Your task to perform on an android device: Clear all items from cart on costco. Search for "dell xps" on costco, select the first entry, and add it to the cart. Image 0: 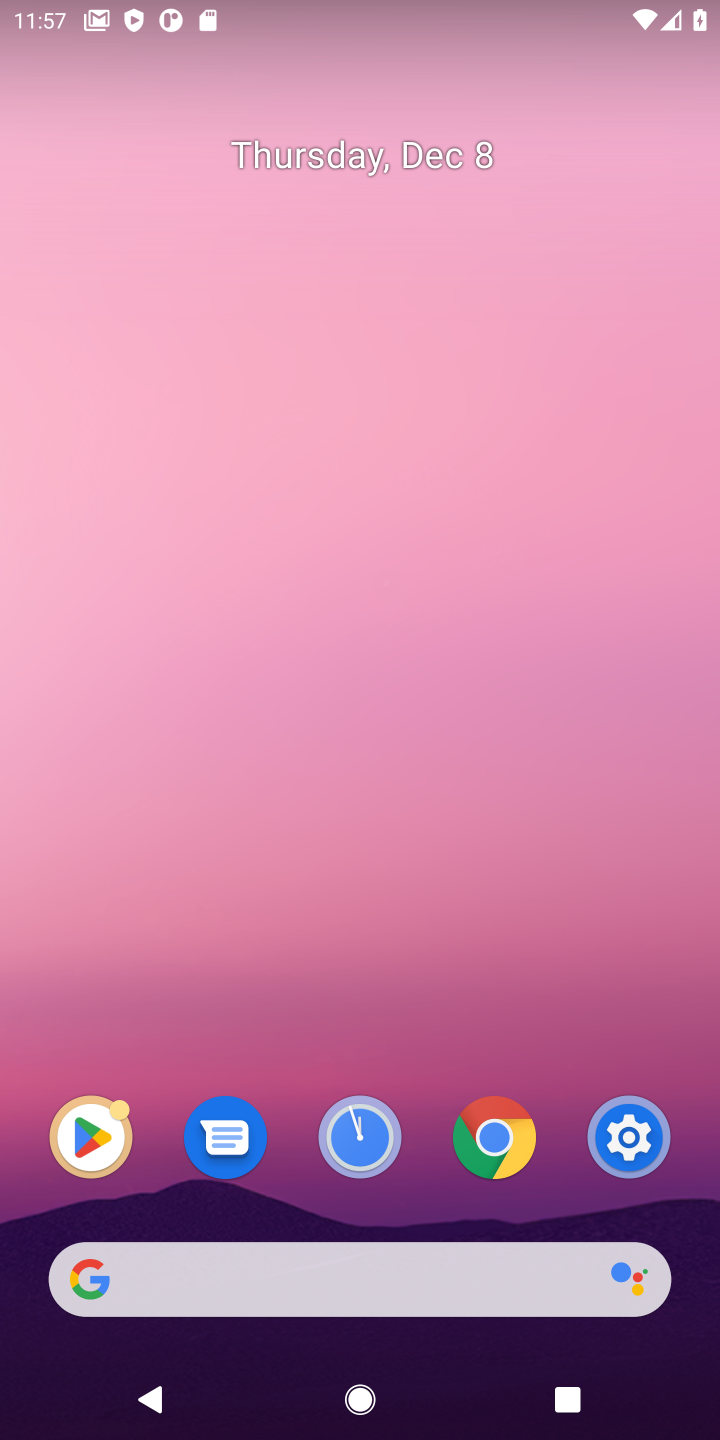
Step 0: click (403, 1275)
Your task to perform on an android device: Clear all items from cart on costco. Search for "dell xps" on costco, select the first entry, and add it to the cart. Image 1: 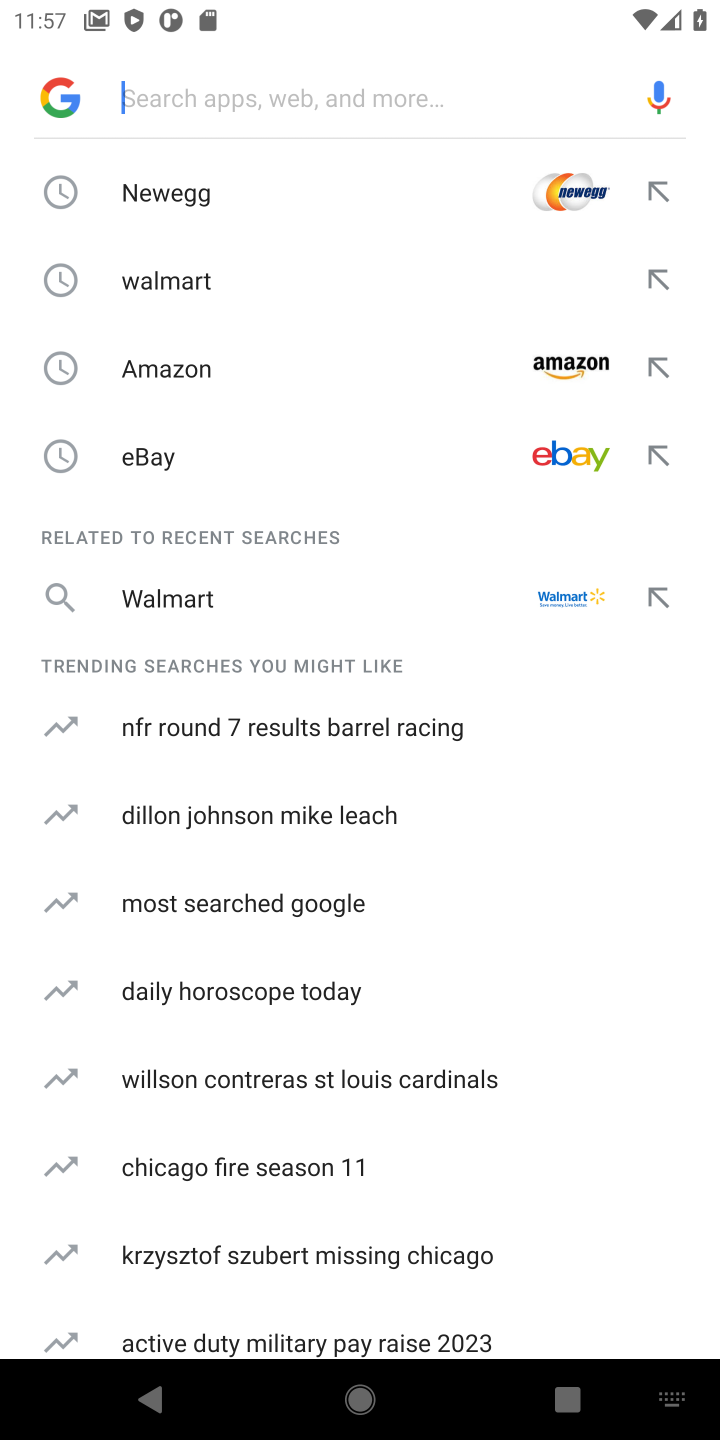
Step 1: type "costco.com"
Your task to perform on an android device: Clear all items from cart on costco. Search for "dell xps" on costco, select the first entry, and add it to the cart. Image 2: 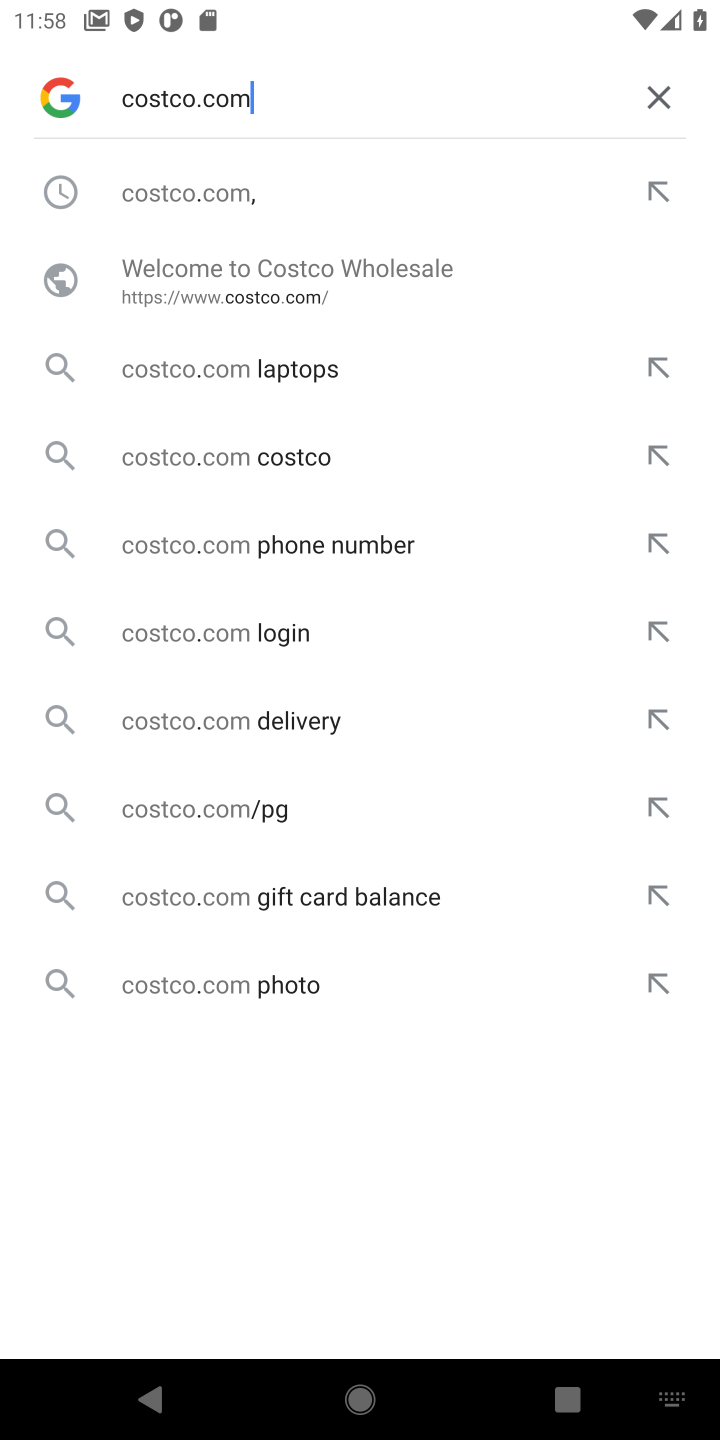
Step 2: click (221, 275)
Your task to perform on an android device: Clear all items from cart on costco. Search for "dell xps" on costco, select the first entry, and add it to the cart. Image 3: 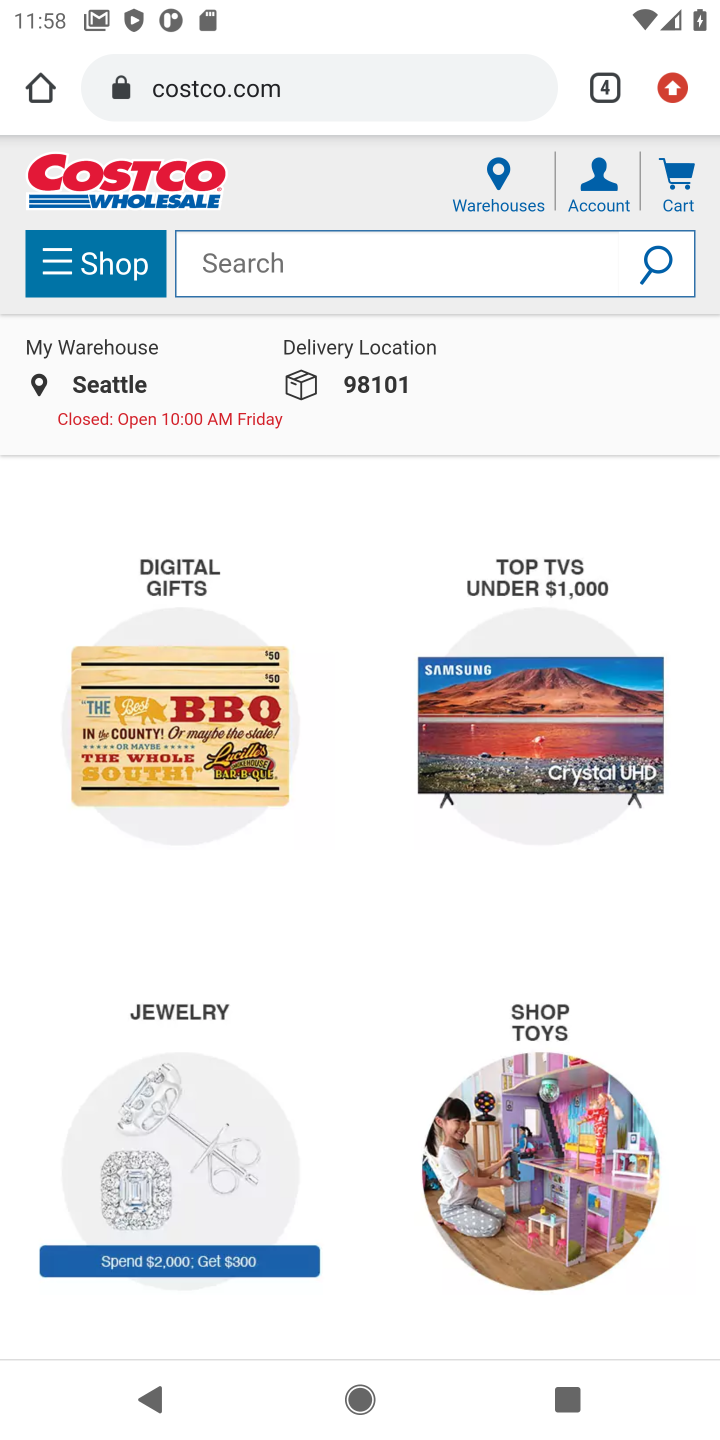
Step 3: click (379, 272)
Your task to perform on an android device: Clear all items from cart on costco. Search for "dell xps" on costco, select the first entry, and add it to the cart. Image 4: 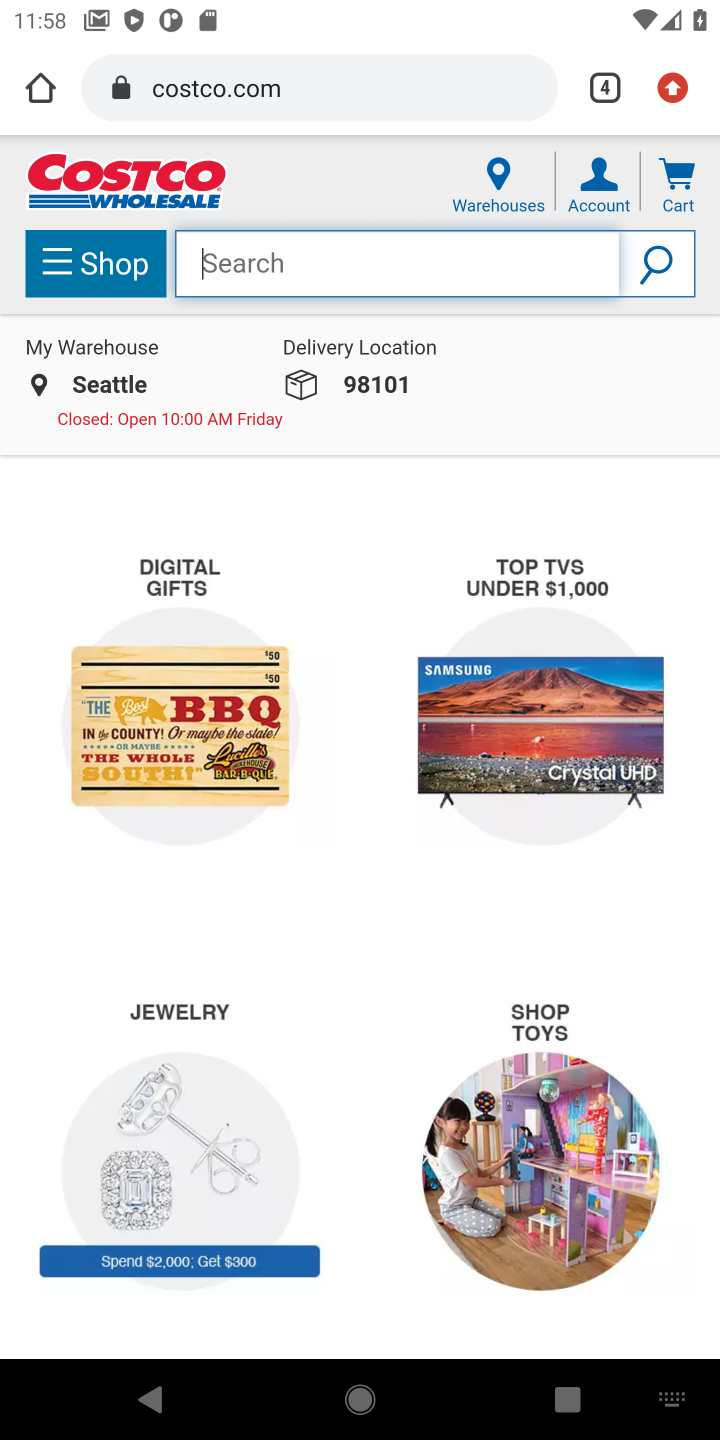
Step 4: type "dell xps"
Your task to perform on an android device: Clear all items from cart on costco. Search for "dell xps" on costco, select the first entry, and add it to the cart. Image 5: 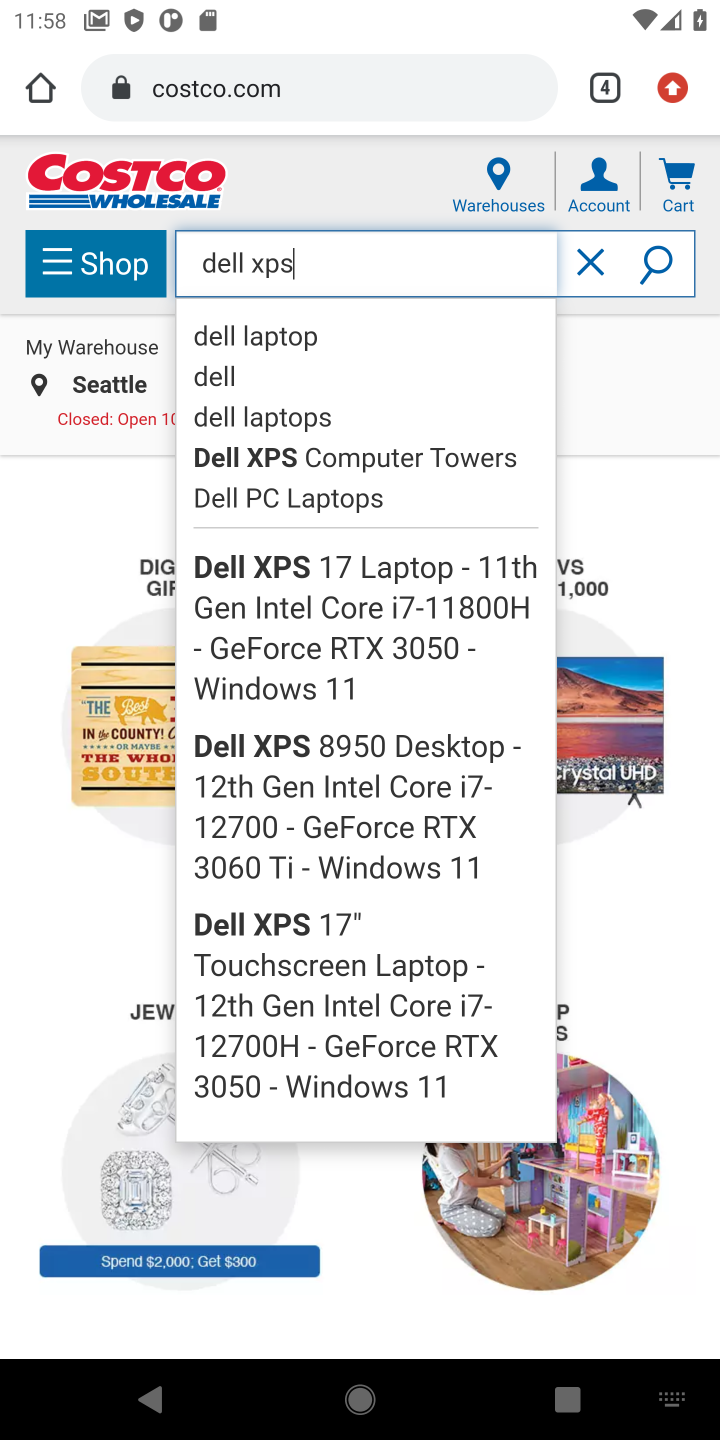
Step 5: click (655, 283)
Your task to perform on an android device: Clear all items from cart on costco. Search for "dell xps" on costco, select the first entry, and add it to the cart. Image 6: 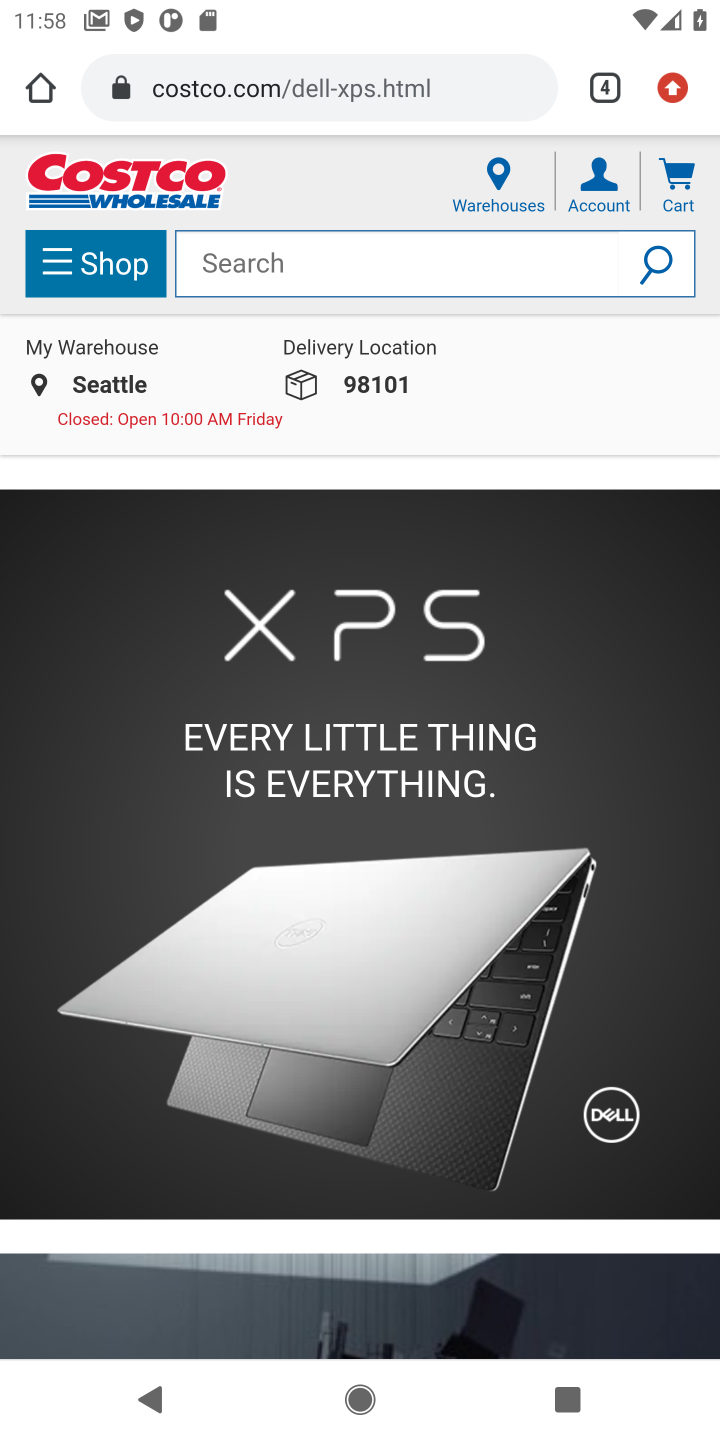
Step 6: click (358, 279)
Your task to perform on an android device: Clear all items from cart on costco. Search for "dell xps" on costco, select the first entry, and add it to the cart. Image 7: 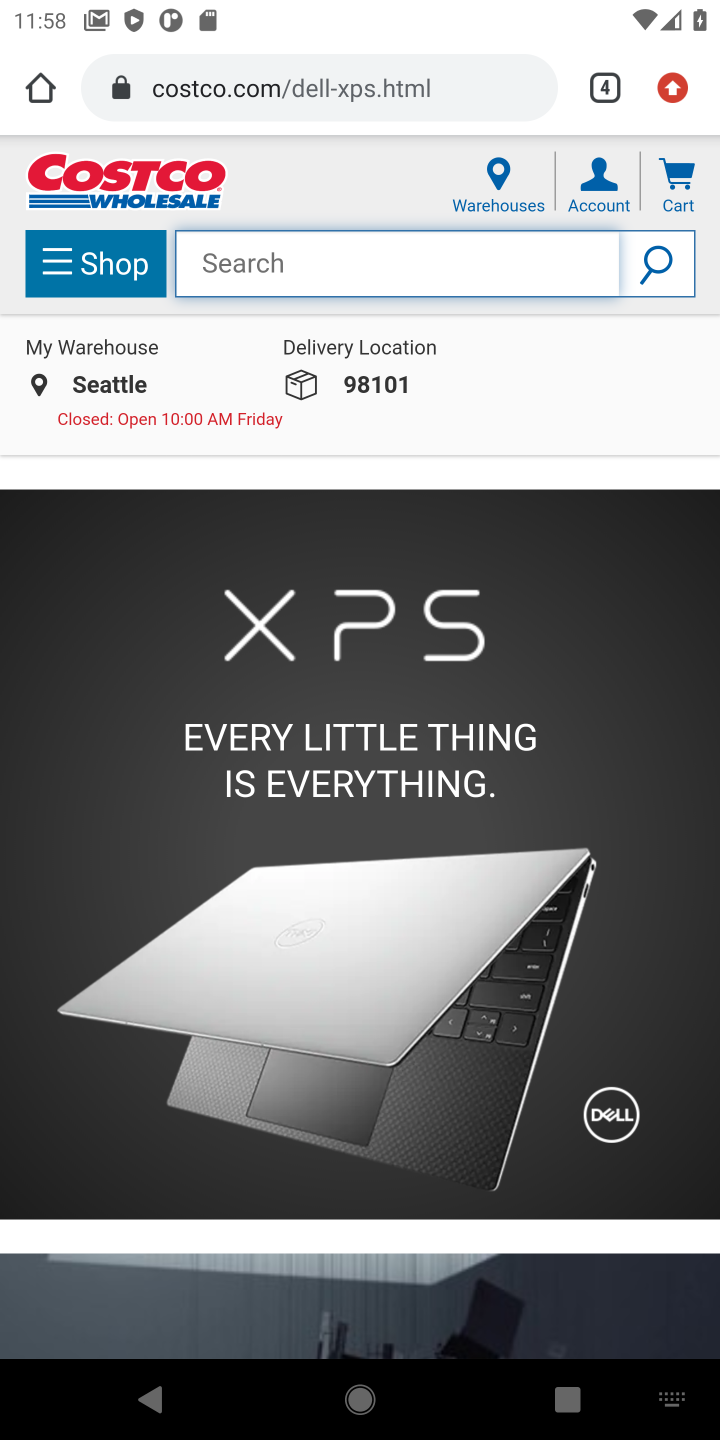
Step 7: type "dell xps"
Your task to perform on an android device: Clear all items from cart on costco. Search for "dell xps" on costco, select the first entry, and add it to the cart. Image 8: 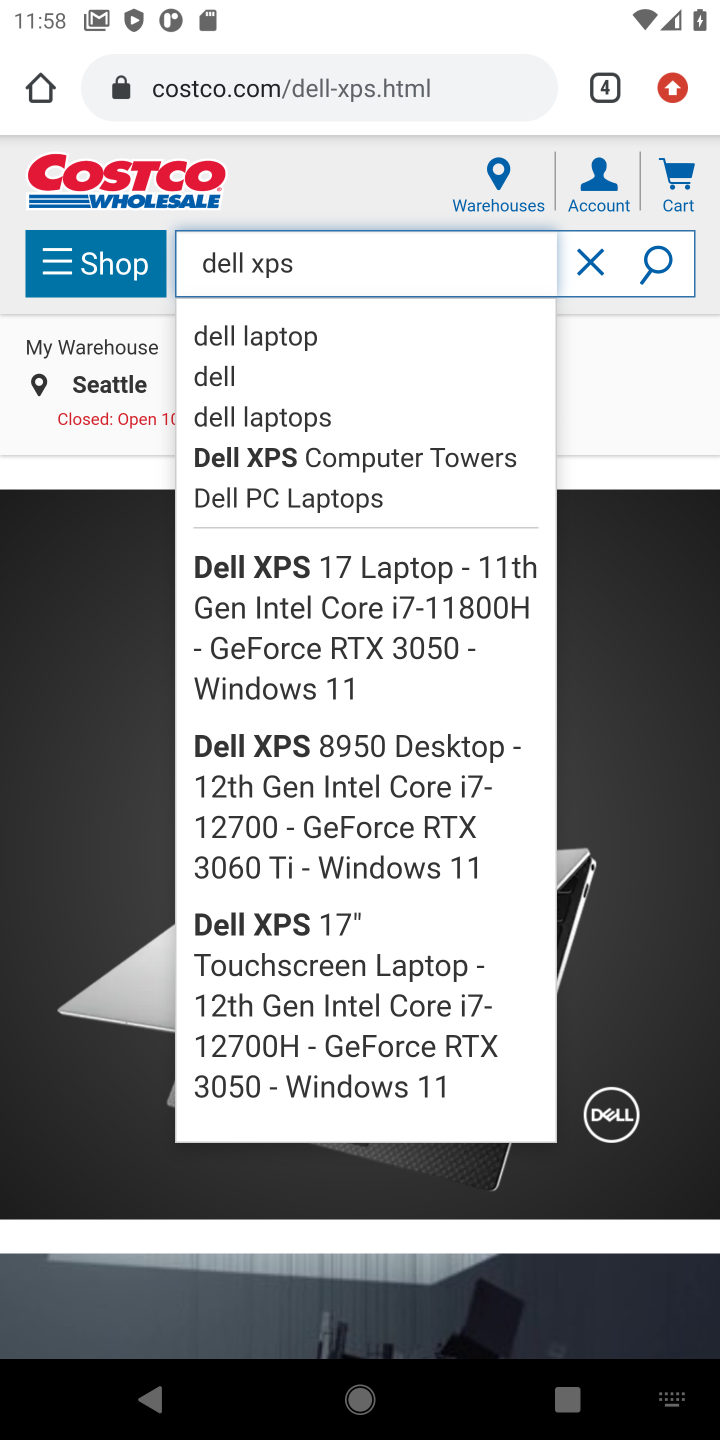
Step 8: click (654, 274)
Your task to perform on an android device: Clear all items from cart on costco. Search for "dell xps" on costco, select the first entry, and add it to the cart. Image 9: 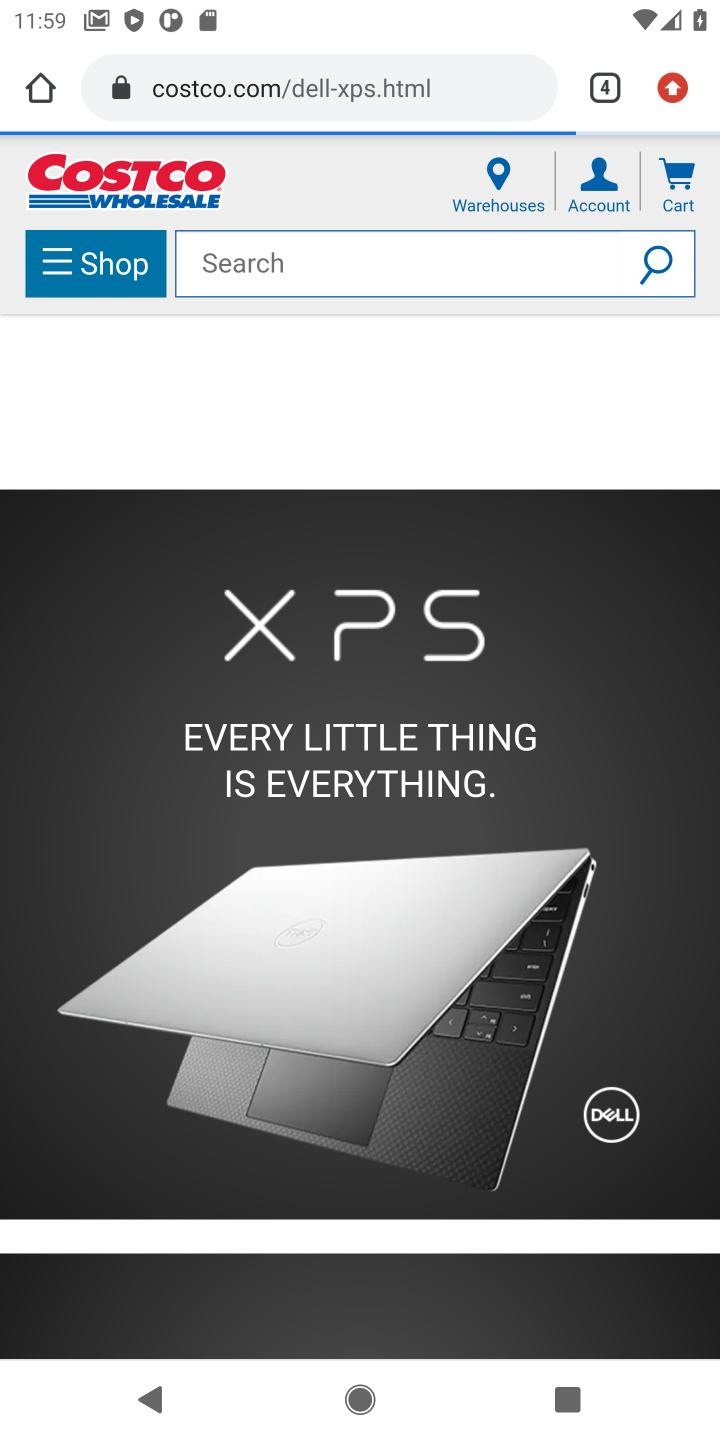
Step 9: task complete